Your task to perform on an android device: Open settings Image 0: 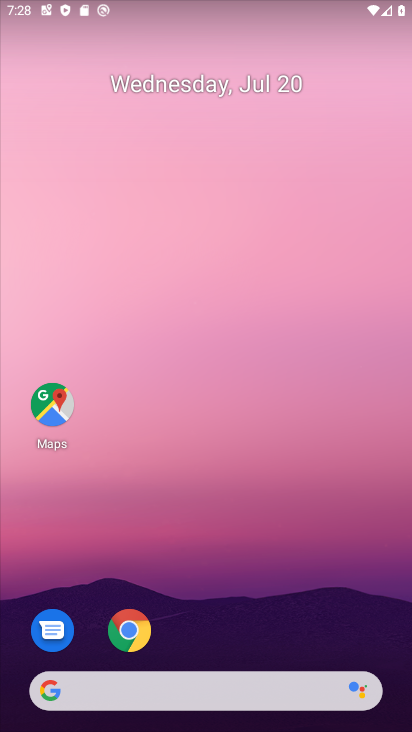
Step 0: drag from (221, 699) to (195, 133)
Your task to perform on an android device: Open settings Image 1: 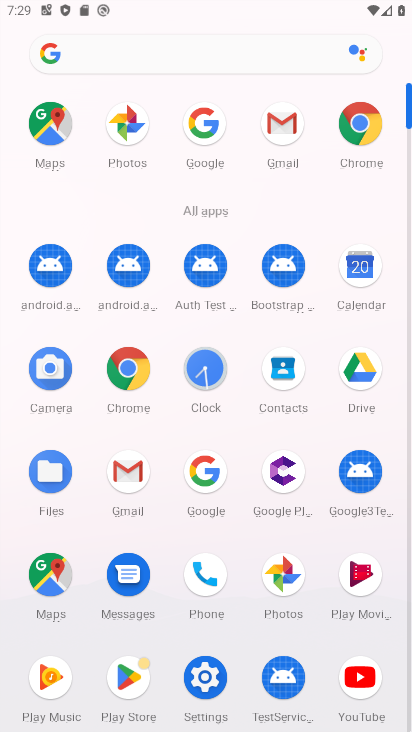
Step 1: click (205, 674)
Your task to perform on an android device: Open settings Image 2: 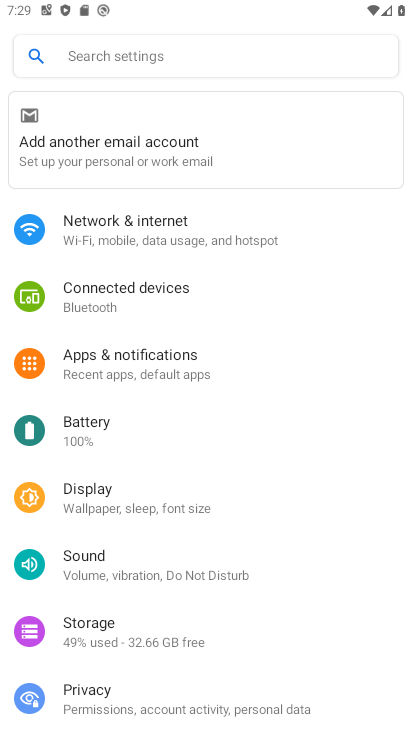
Step 2: task complete